Your task to perform on an android device: What is the news today? Image 0: 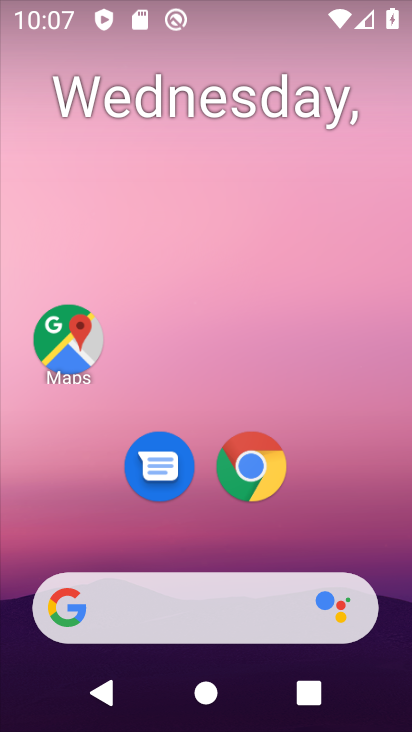
Step 0: drag from (214, 541) to (203, 94)
Your task to perform on an android device: What is the news today? Image 1: 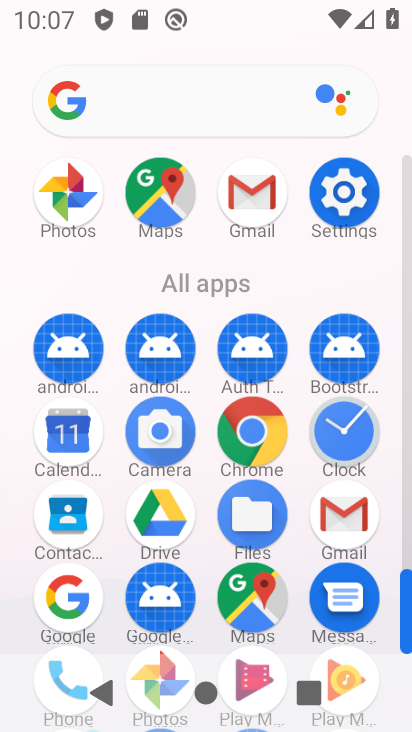
Step 1: click (72, 593)
Your task to perform on an android device: What is the news today? Image 2: 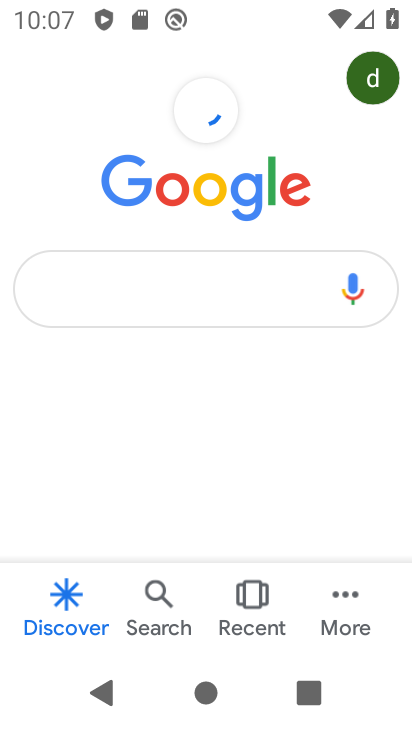
Step 2: click (170, 281)
Your task to perform on an android device: What is the news today? Image 3: 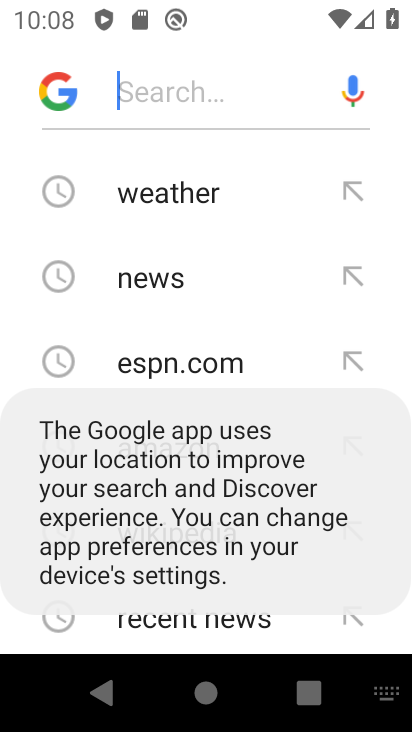
Step 3: drag from (193, 284) to (204, 137)
Your task to perform on an android device: What is the news today? Image 4: 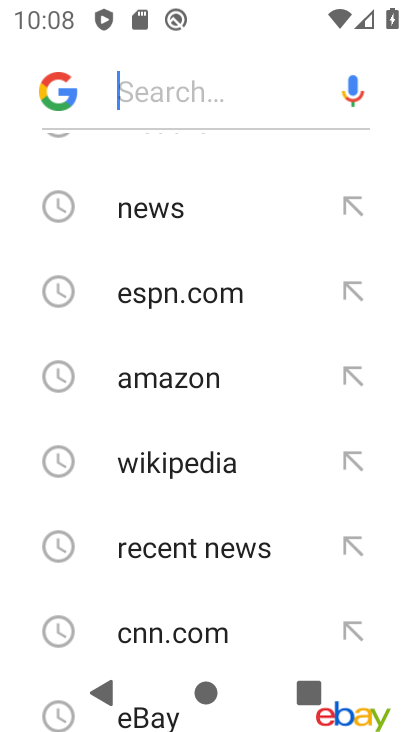
Step 4: click (201, 216)
Your task to perform on an android device: What is the news today? Image 5: 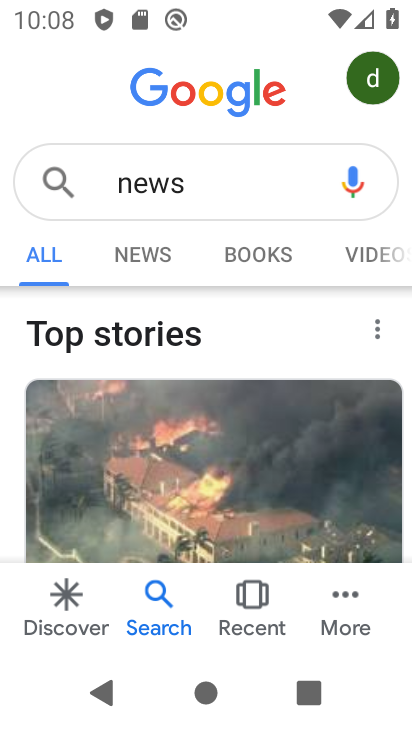
Step 5: task complete